Your task to perform on an android device: change keyboard looks Image 0: 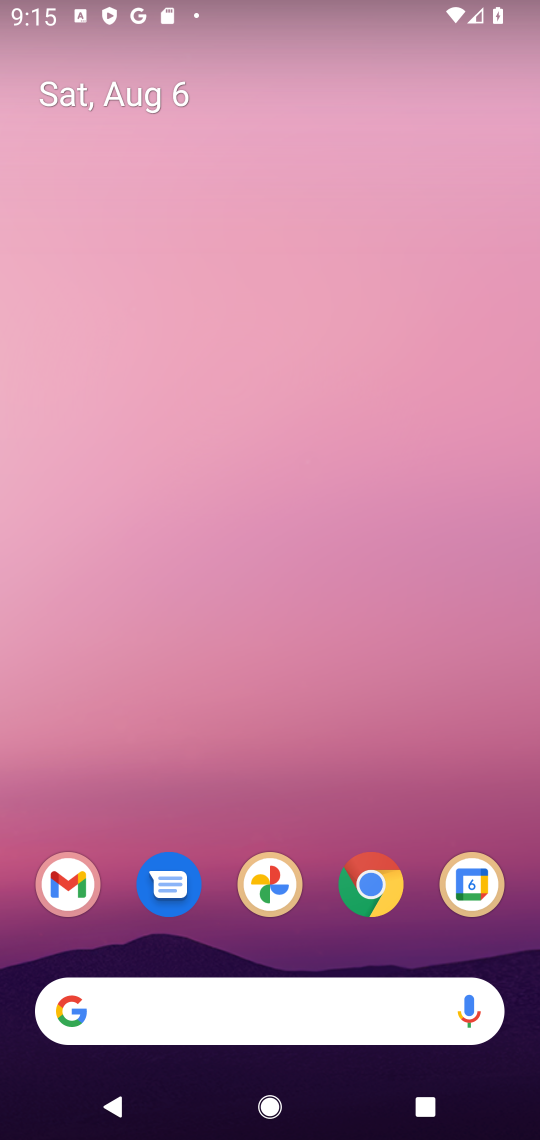
Step 0: drag from (418, 926) to (370, 108)
Your task to perform on an android device: change keyboard looks Image 1: 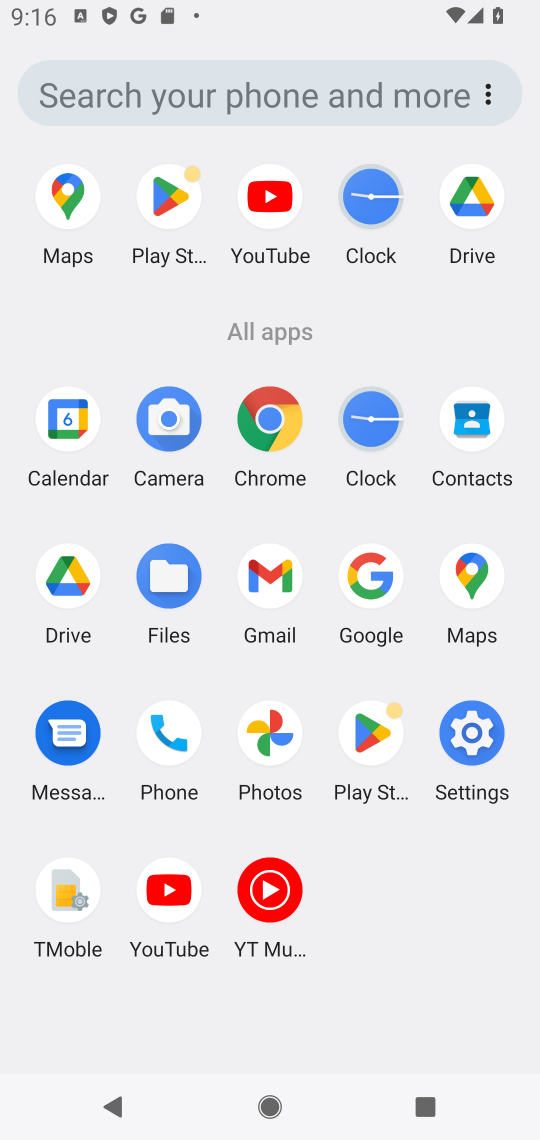
Step 1: click (475, 731)
Your task to perform on an android device: change keyboard looks Image 2: 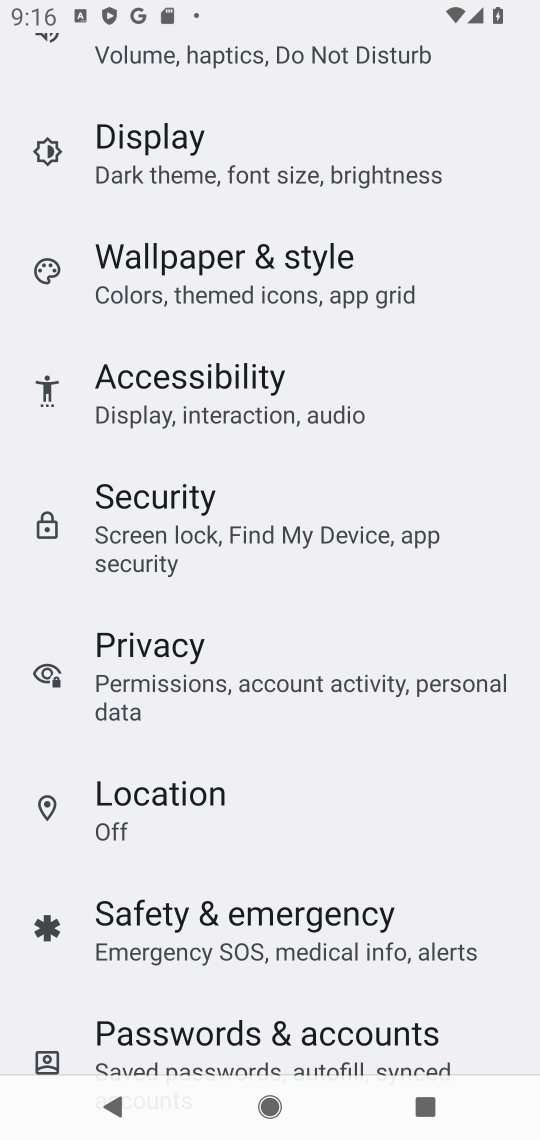
Step 2: drag from (470, 856) to (460, 297)
Your task to perform on an android device: change keyboard looks Image 3: 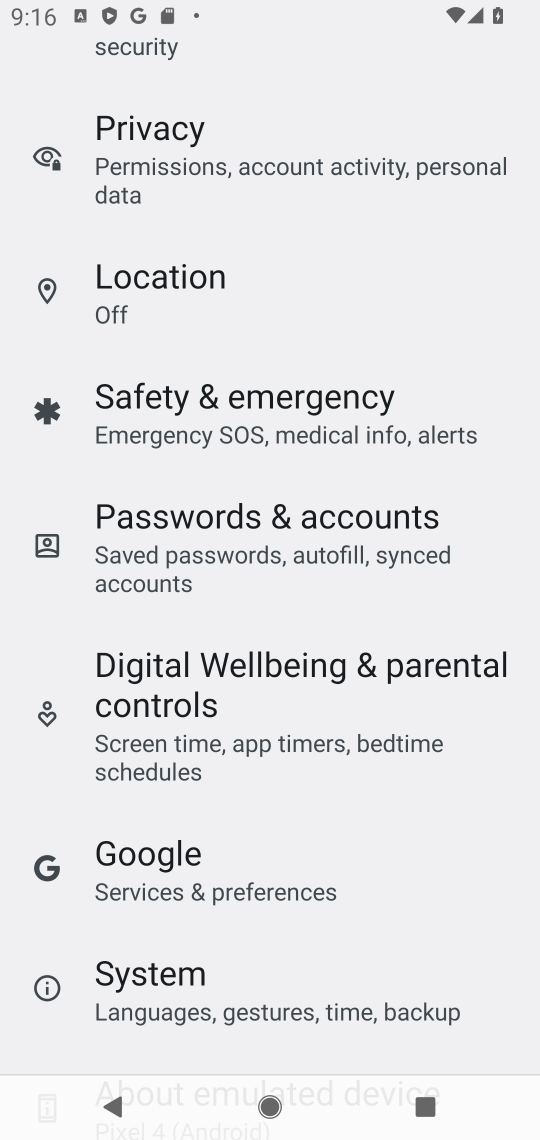
Step 3: drag from (468, 910) to (471, 288)
Your task to perform on an android device: change keyboard looks Image 4: 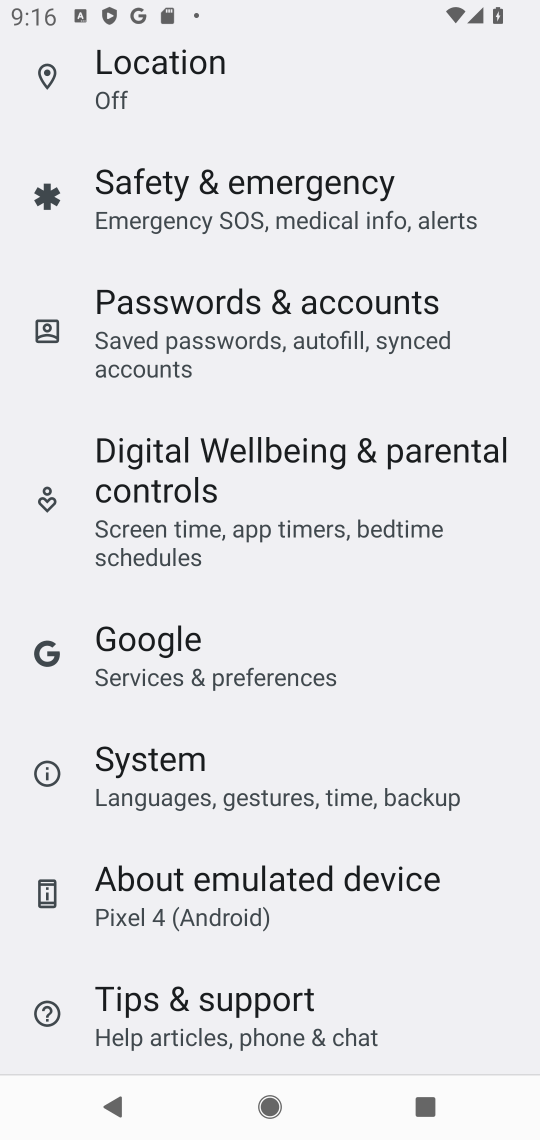
Step 4: click (145, 768)
Your task to perform on an android device: change keyboard looks Image 5: 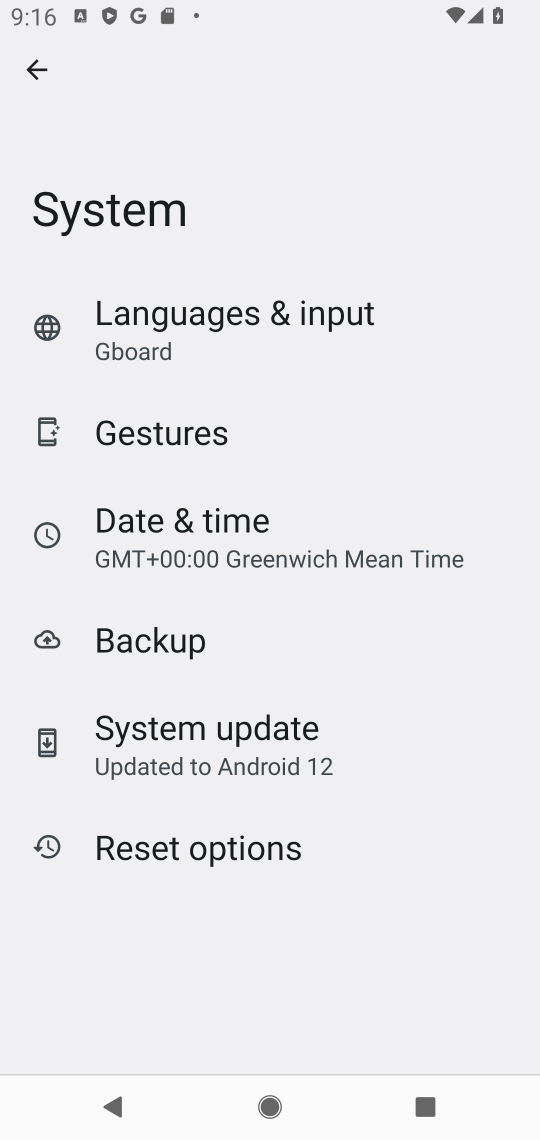
Step 5: click (175, 321)
Your task to perform on an android device: change keyboard looks Image 6: 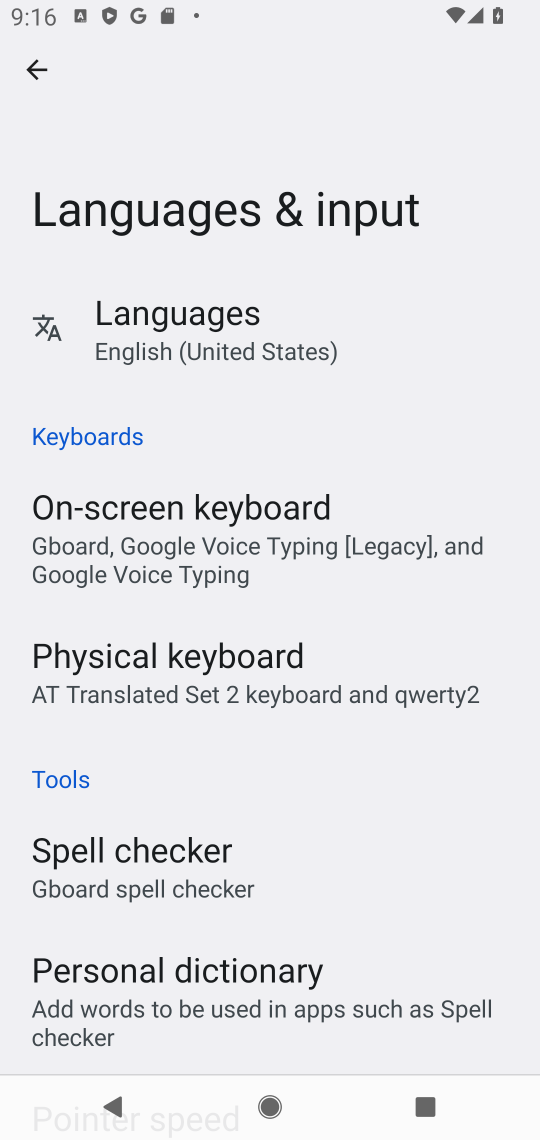
Step 6: click (126, 670)
Your task to perform on an android device: change keyboard looks Image 7: 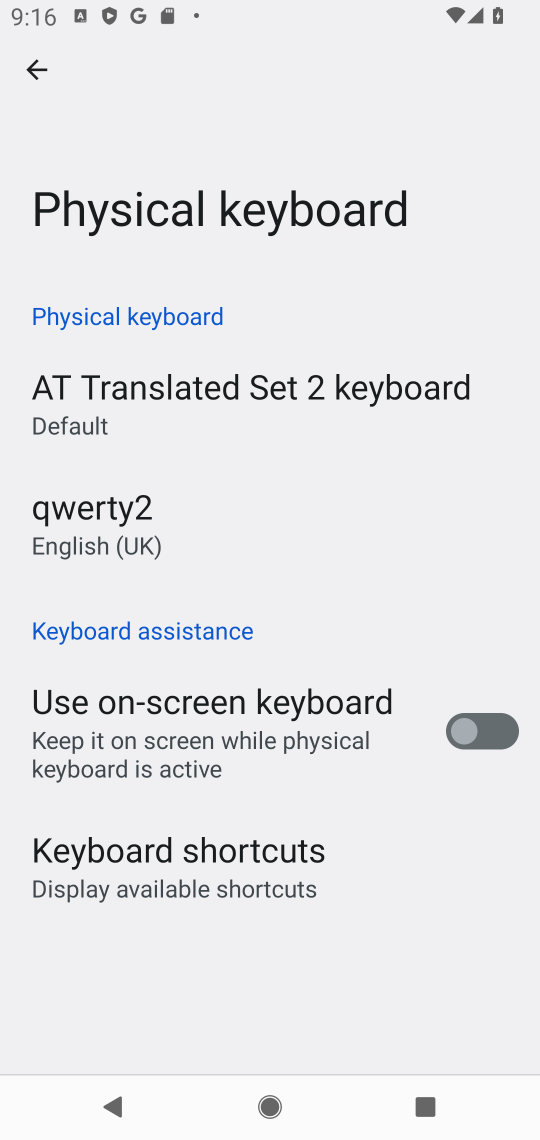
Step 7: click (139, 397)
Your task to perform on an android device: change keyboard looks Image 8: 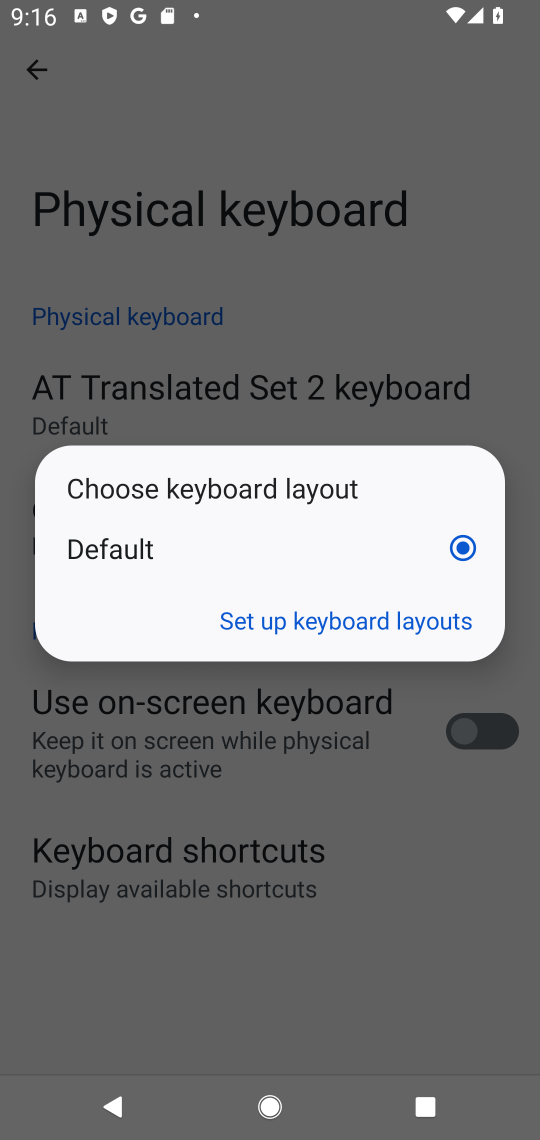
Step 8: click (374, 612)
Your task to perform on an android device: change keyboard looks Image 9: 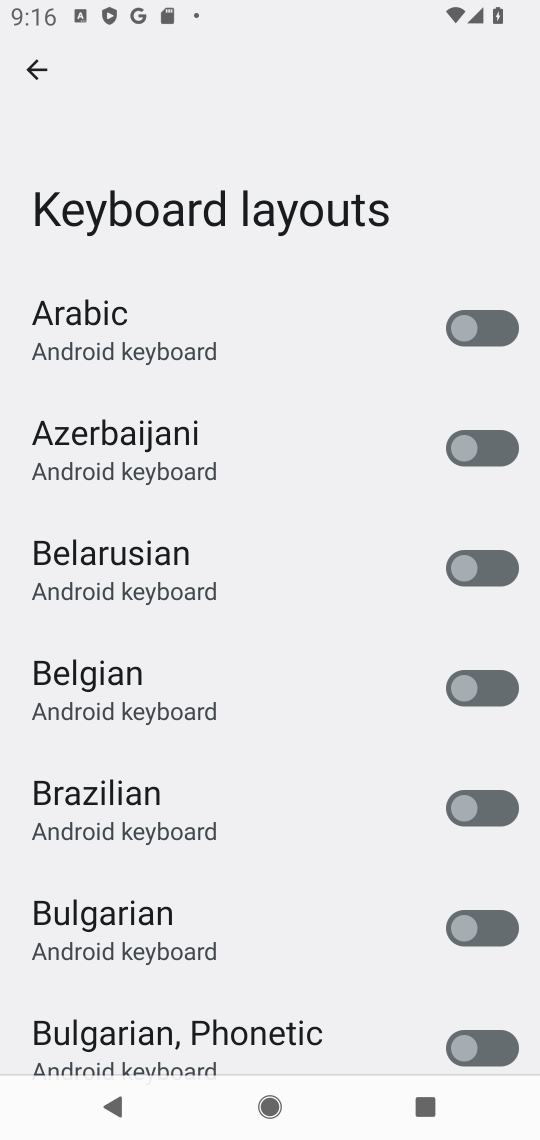
Step 9: drag from (370, 1013) to (327, 108)
Your task to perform on an android device: change keyboard looks Image 10: 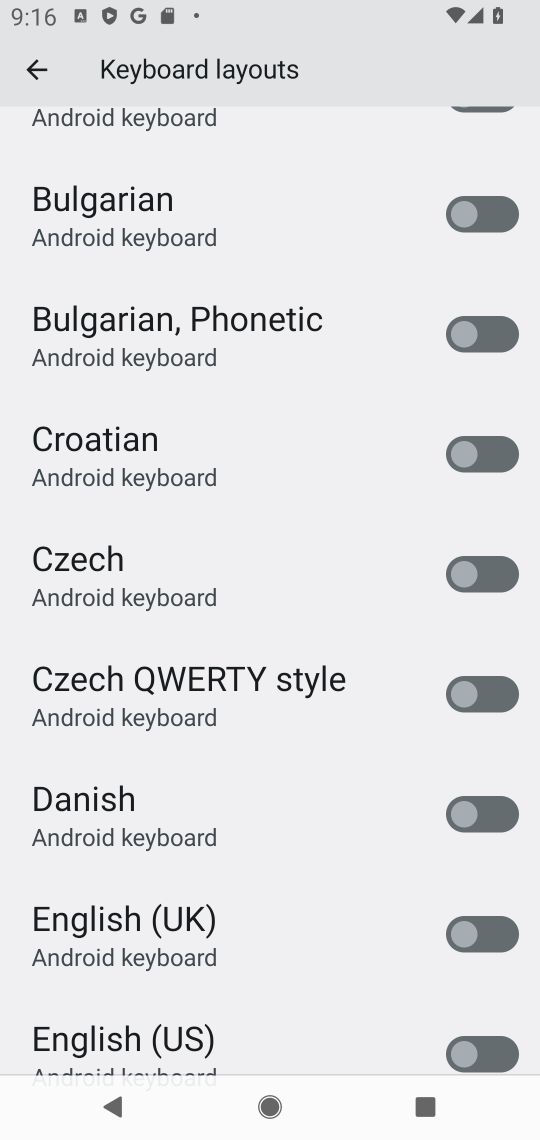
Step 10: click (483, 809)
Your task to perform on an android device: change keyboard looks Image 11: 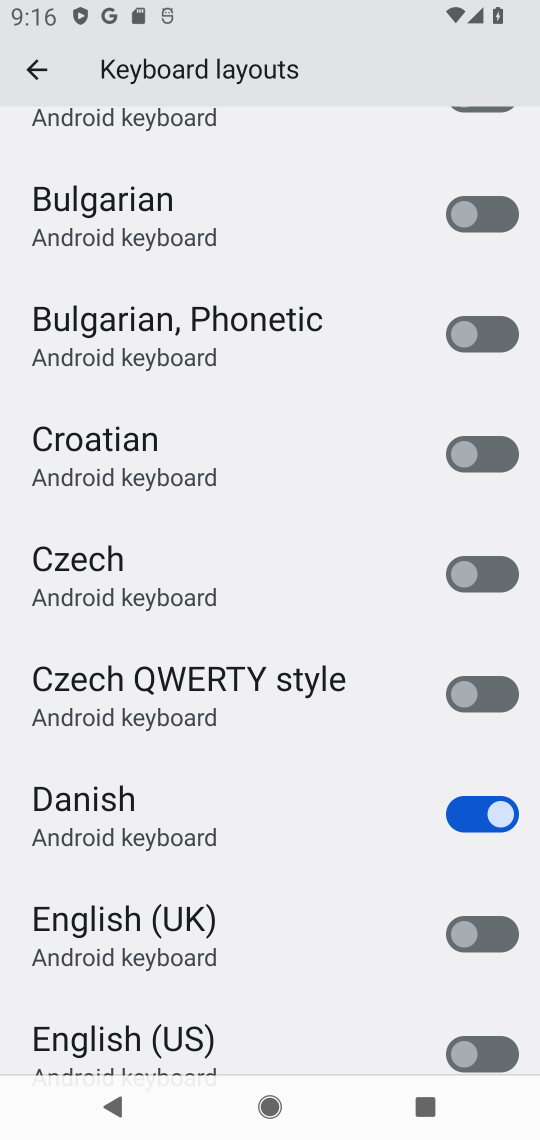
Step 11: task complete